Your task to perform on an android device: Open Maps and search for coffee Image 0: 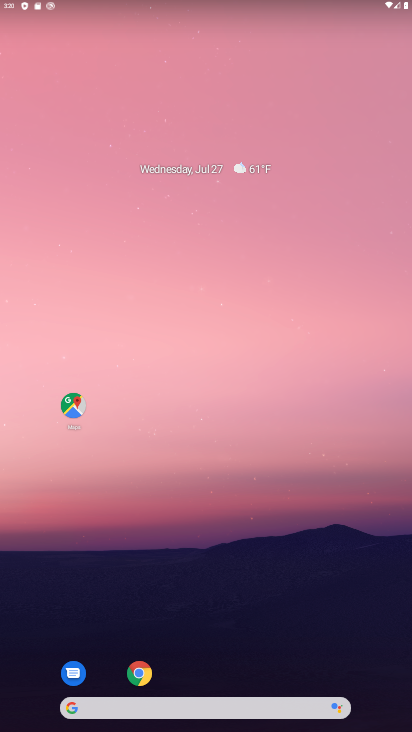
Step 0: click (67, 401)
Your task to perform on an android device: Open Maps and search for coffee Image 1: 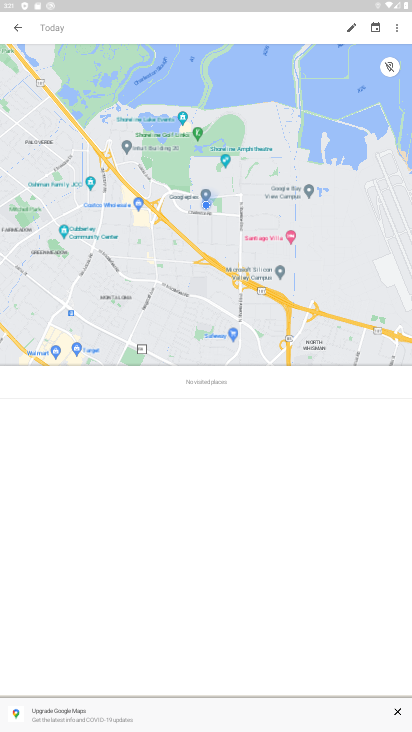
Step 1: click (17, 31)
Your task to perform on an android device: Open Maps and search for coffee Image 2: 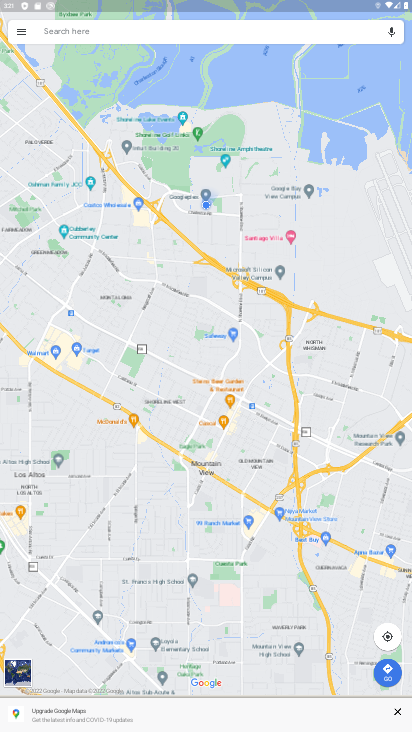
Step 2: click (95, 33)
Your task to perform on an android device: Open Maps and search for coffee Image 3: 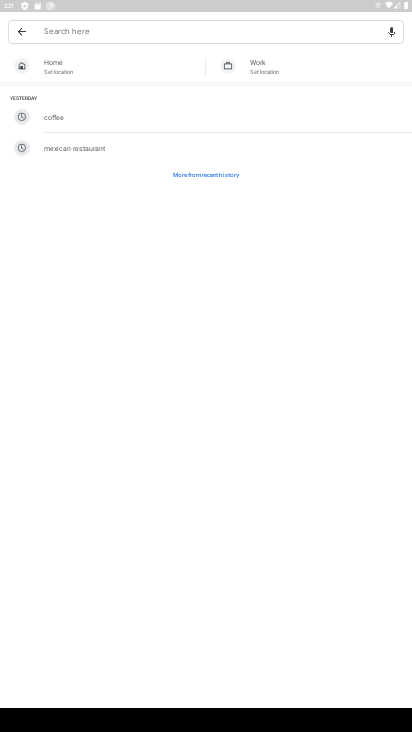
Step 3: click (68, 108)
Your task to perform on an android device: Open Maps and search for coffee Image 4: 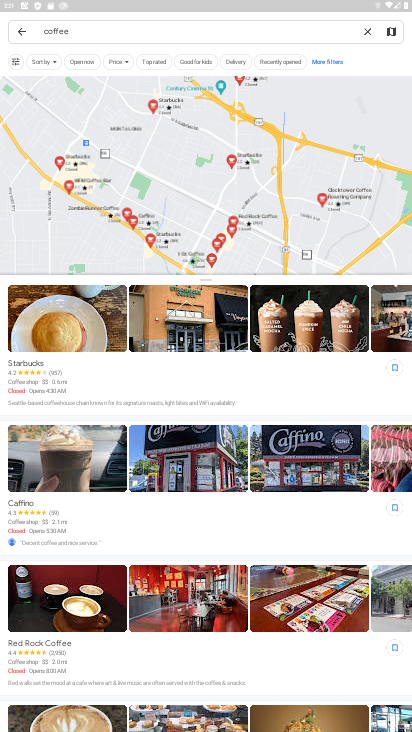
Step 4: task complete